Your task to perform on an android device: open app "Spotify" (install if not already installed) and go to login screen Image 0: 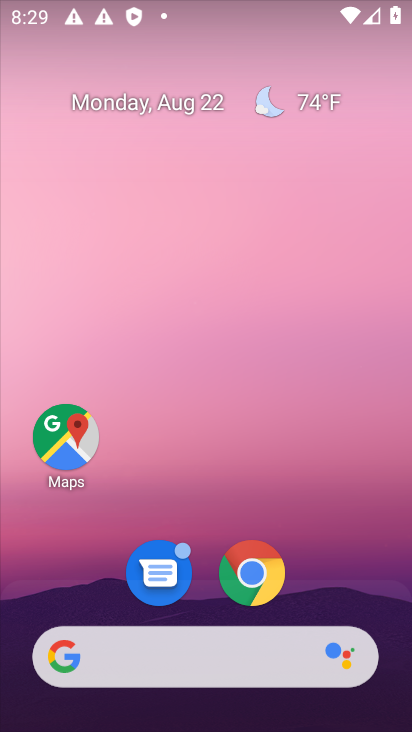
Step 0: drag from (198, 624) to (215, 239)
Your task to perform on an android device: open app "Spotify" (install if not already installed) and go to login screen Image 1: 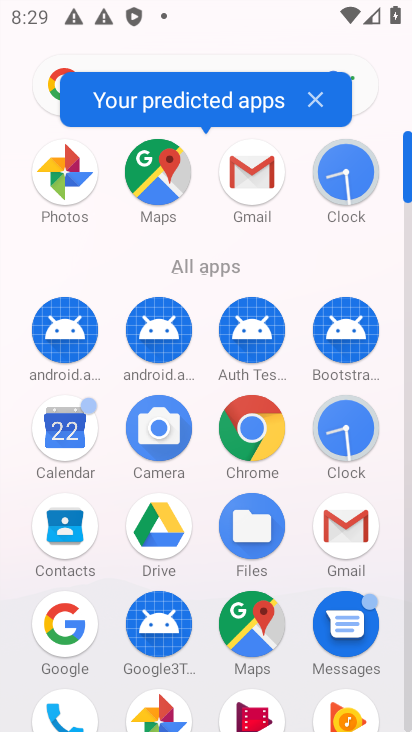
Step 1: drag from (186, 602) to (193, 330)
Your task to perform on an android device: open app "Spotify" (install if not already installed) and go to login screen Image 2: 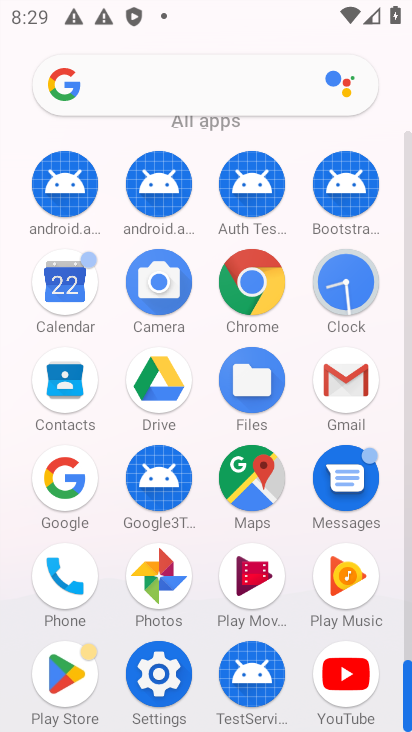
Step 2: click (77, 675)
Your task to perform on an android device: open app "Spotify" (install if not already installed) and go to login screen Image 3: 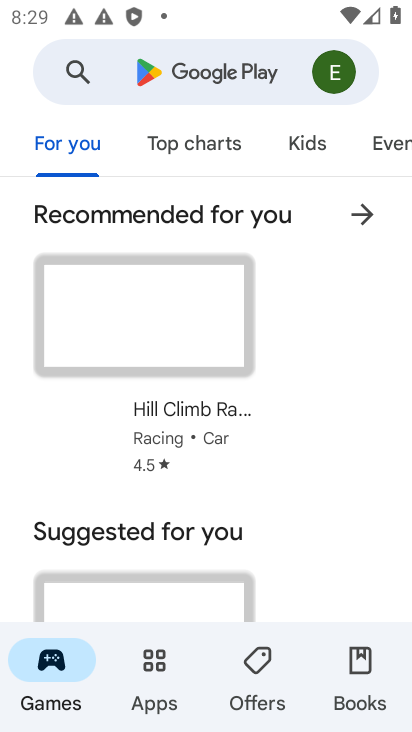
Step 3: click (187, 70)
Your task to perform on an android device: open app "Spotify" (install if not already installed) and go to login screen Image 4: 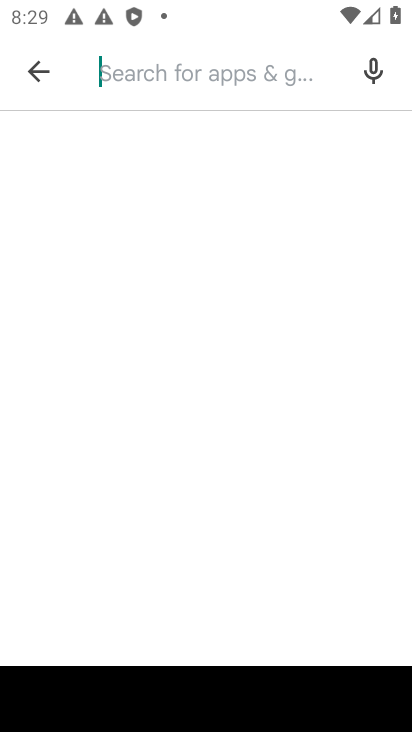
Step 4: type "spotify"
Your task to perform on an android device: open app "Spotify" (install if not already installed) and go to login screen Image 5: 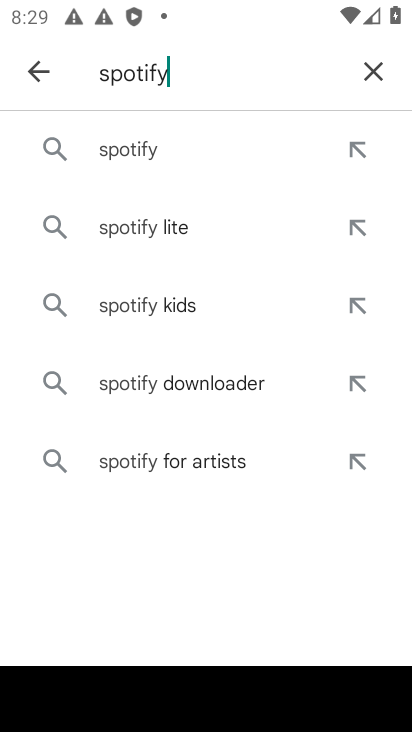
Step 5: click (110, 139)
Your task to perform on an android device: open app "Spotify" (install if not already installed) and go to login screen Image 6: 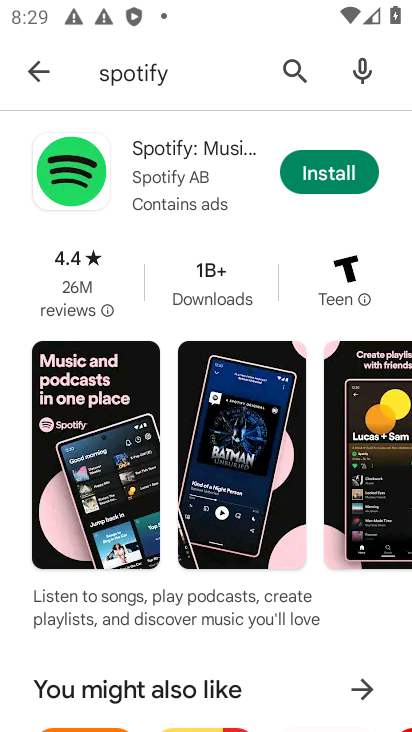
Step 6: click (353, 173)
Your task to perform on an android device: open app "Spotify" (install if not already installed) and go to login screen Image 7: 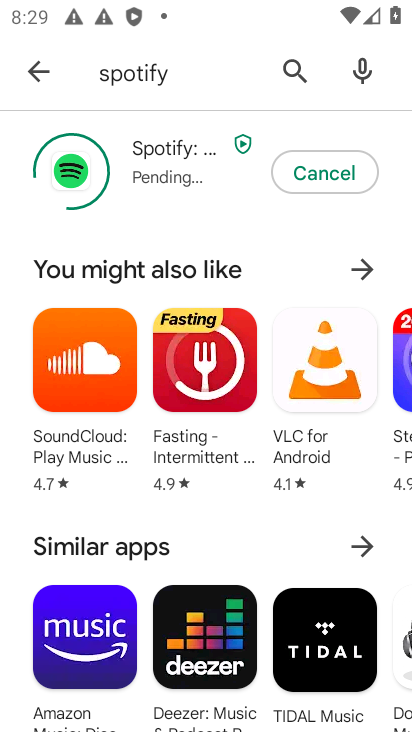
Step 7: click (32, 71)
Your task to perform on an android device: open app "Spotify" (install if not already installed) and go to login screen Image 8: 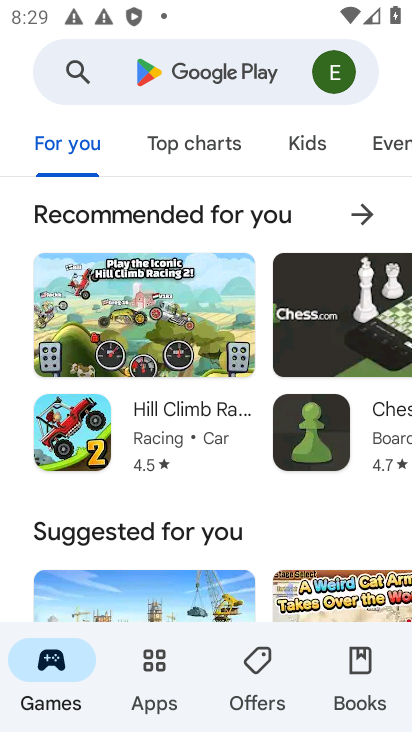
Step 8: click (341, 72)
Your task to perform on an android device: open app "Spotify" (install if not already installed) and go to login screen Image 9: 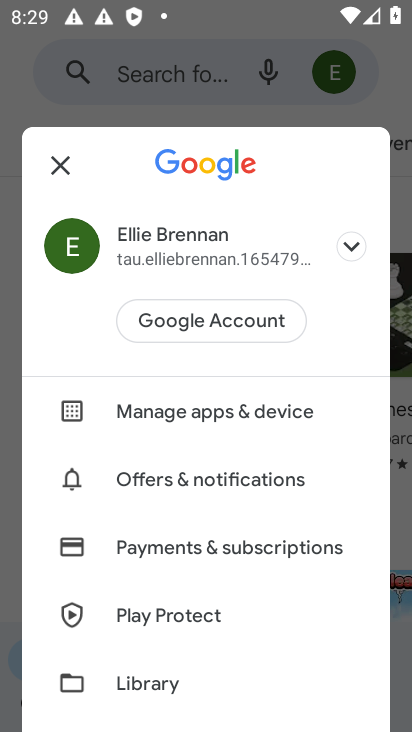
Step 9: click (176, 420)
Your task to perform on an android device: open app "Spotify" (install if not already installed) and go to login screen Image 10: 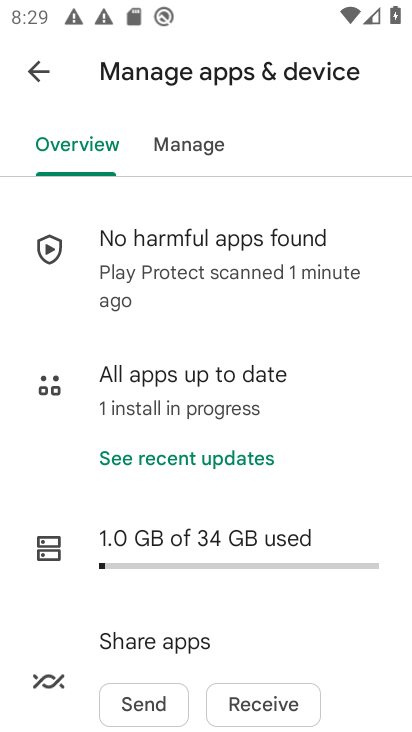
Step 10: click (169, 394)
Your task to perform on an android device: open app "Spotify" (install if not already installed) and go to login screen Image 11: 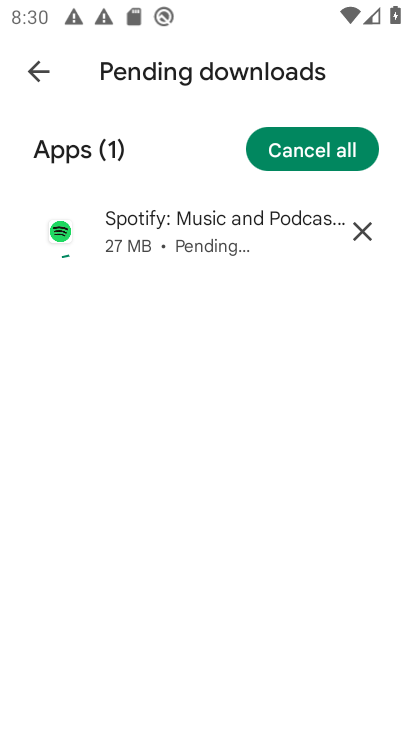
Step 11: click (151, 220)
Your task to perform on an android device: open app "Spotify" (install if not already installed) and go to login screen Image 12: 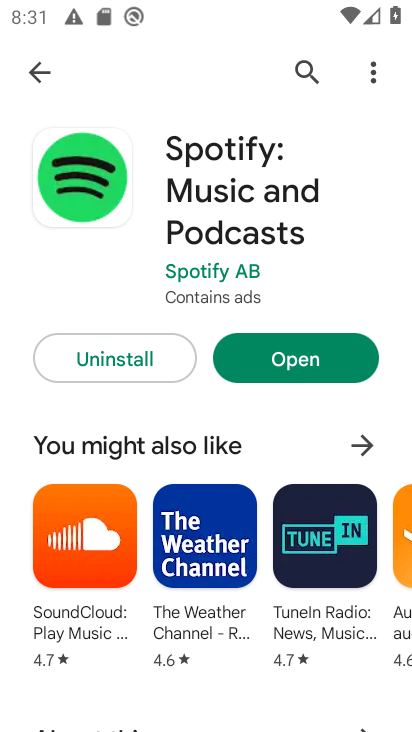
Step 12: click (324, 359)
Your task to perform on an android device: open app "Spotify" (install if not already installed) and go to login screen Image 13: 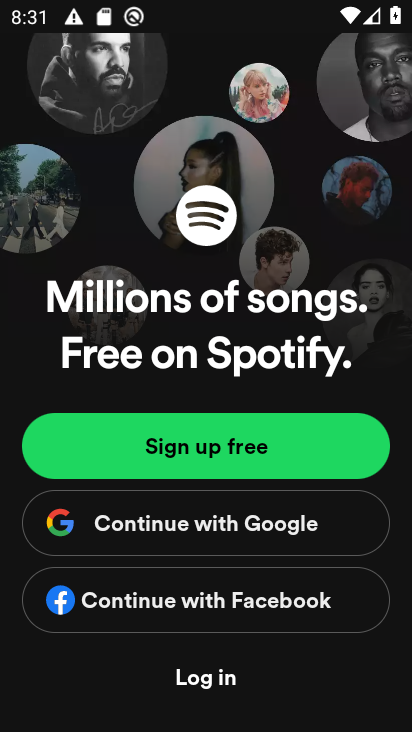
Step 13: click (216, 678)
Your task to perform on an android device: open app "Spotify" (install if not already installed) and go to login screen Image 14: 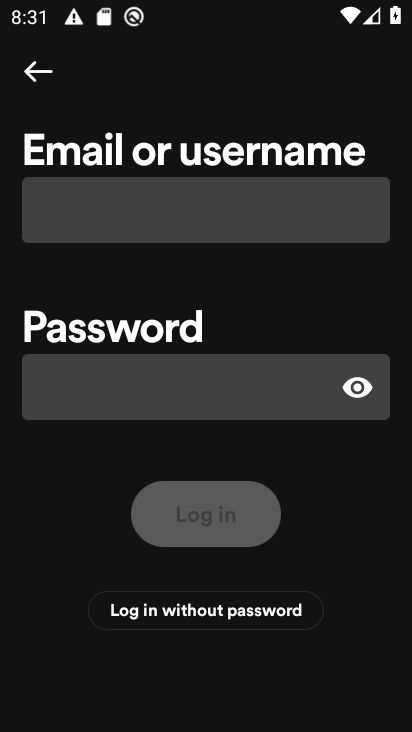
Step 14: task complete